Your task to perform on an android device: Open calendar and show me the third week of next month Image 0: 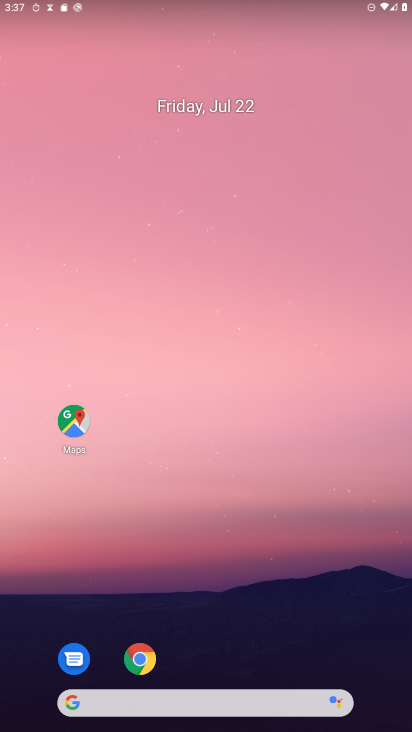
Step 0: drag from (173, 635) to (1, 105)
Your task to perform on an android device: Open calendar and show me the third week of next month Image 1: 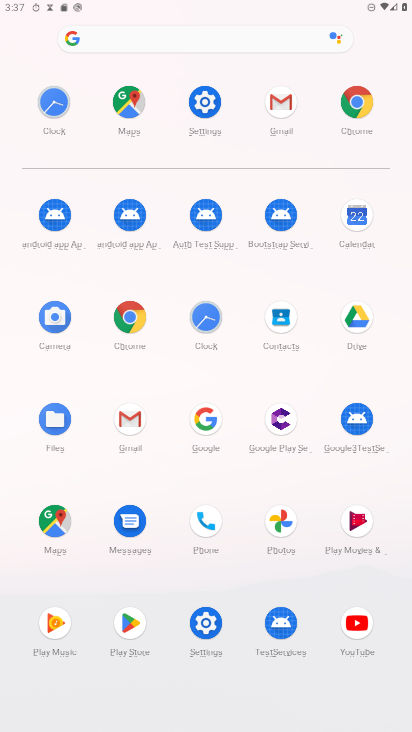
Step 1: click (357, 225)
Your task to perform on an android device: Open calendar and show me the third week of next month Image 2: 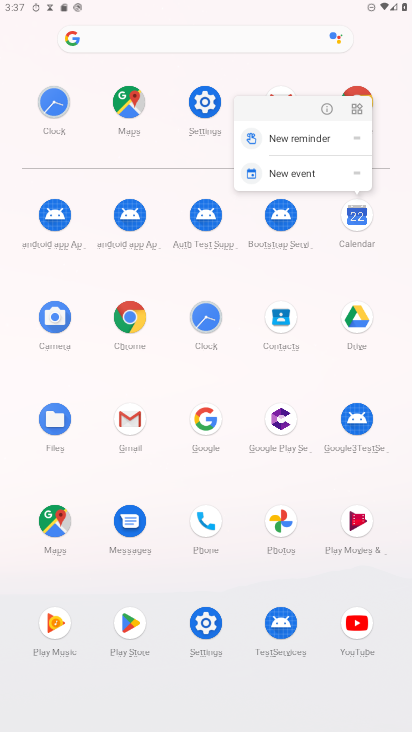
Step 2: click (356, 213)
Your task to perform on an android device: Open calendar and show me the third week of next month Image 3: 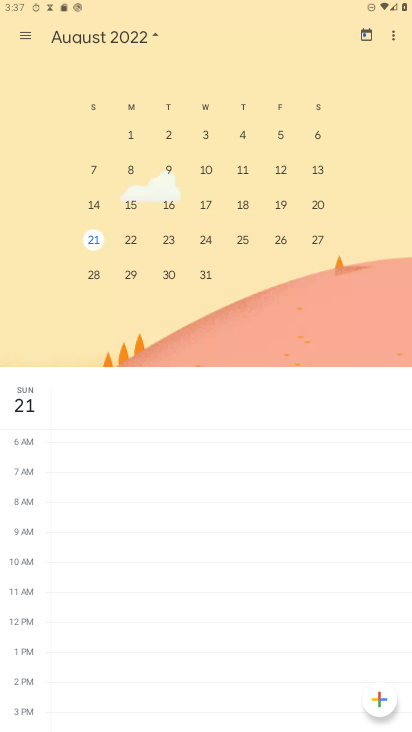
Step 3: drag from (301, 194) to (5, 214)
Your task to perform on an android device: Open calendar and show me the third week of next month Image 4: 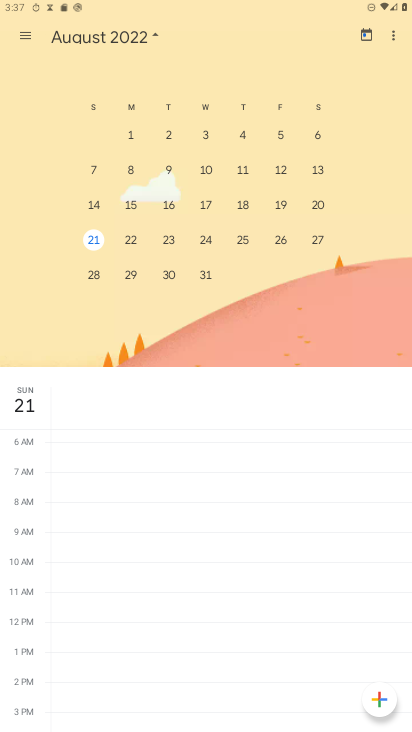
Step 4: drag from (274, 231) to (0, 258)
Your task to perform on an android device: Open calendar and show me the third week of next month Image 5: 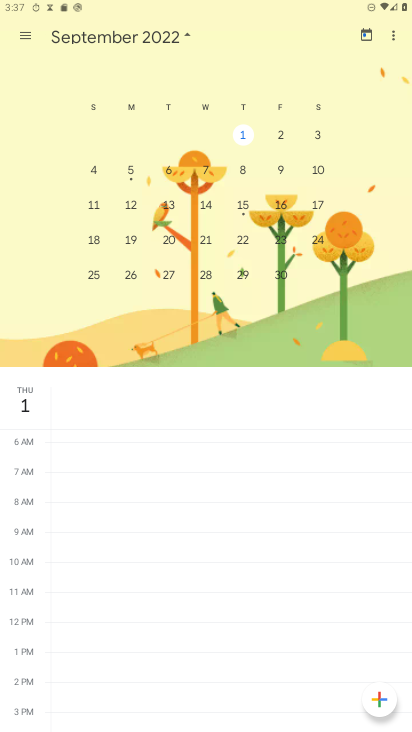
Step 5: click (210, 238)
Your task to perform on an android device: Open calendar and show me the third week of next month Image 6: 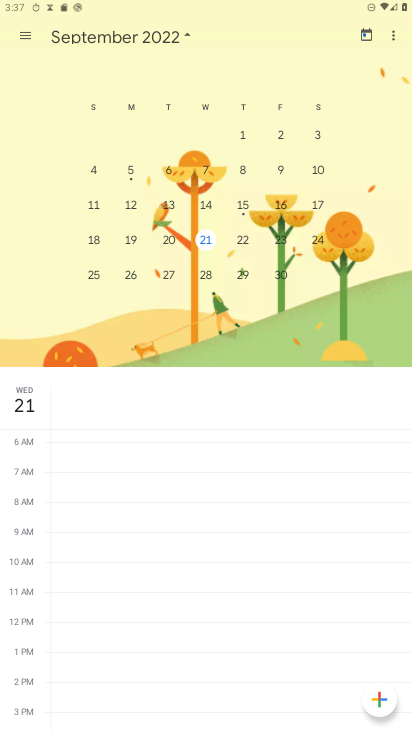
Step 6: task complete